Your task to perform on an android device: turn pop-ups off in chrome Image 0: 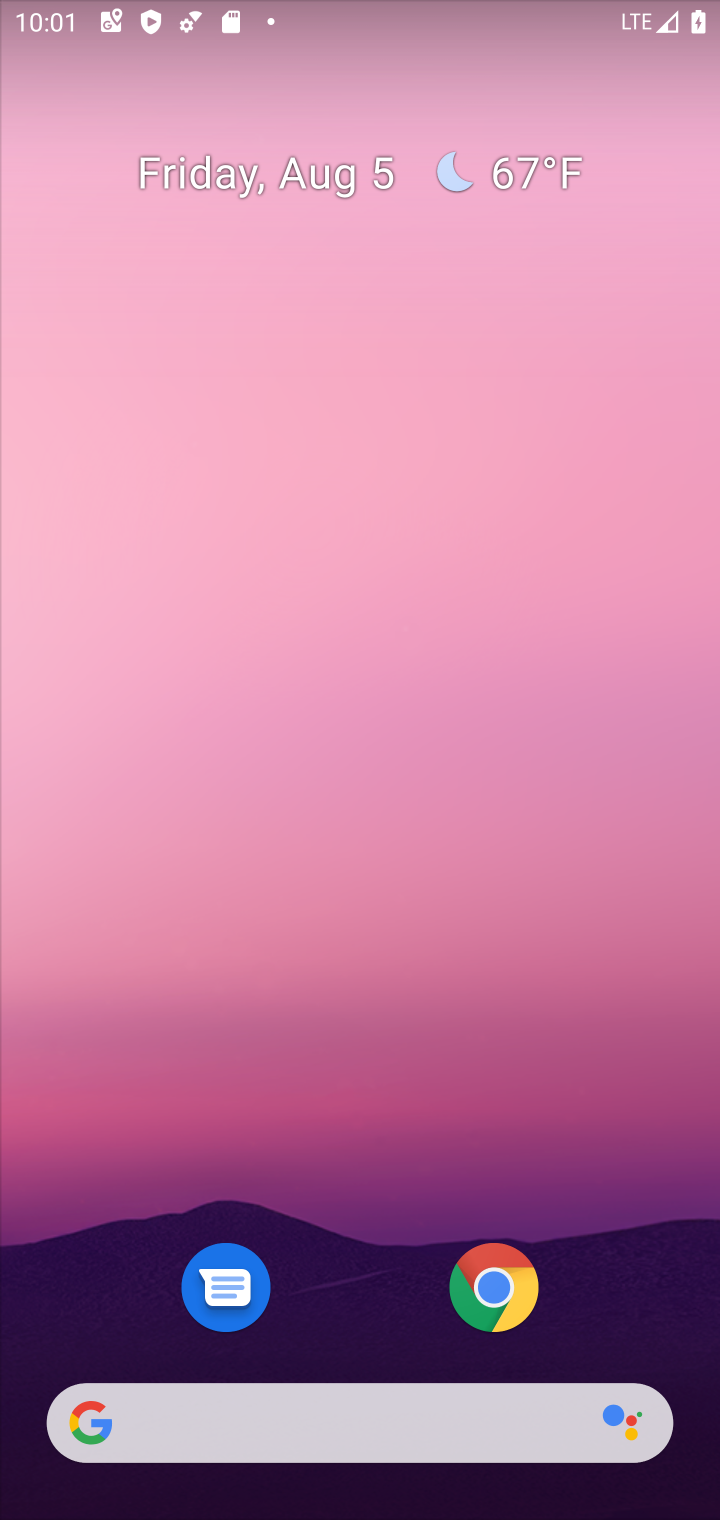
Step 0: drag from (373, 1314) to (371, 257)
Your task to perform on an android device: turn pop-ups off in chrome Image 1: 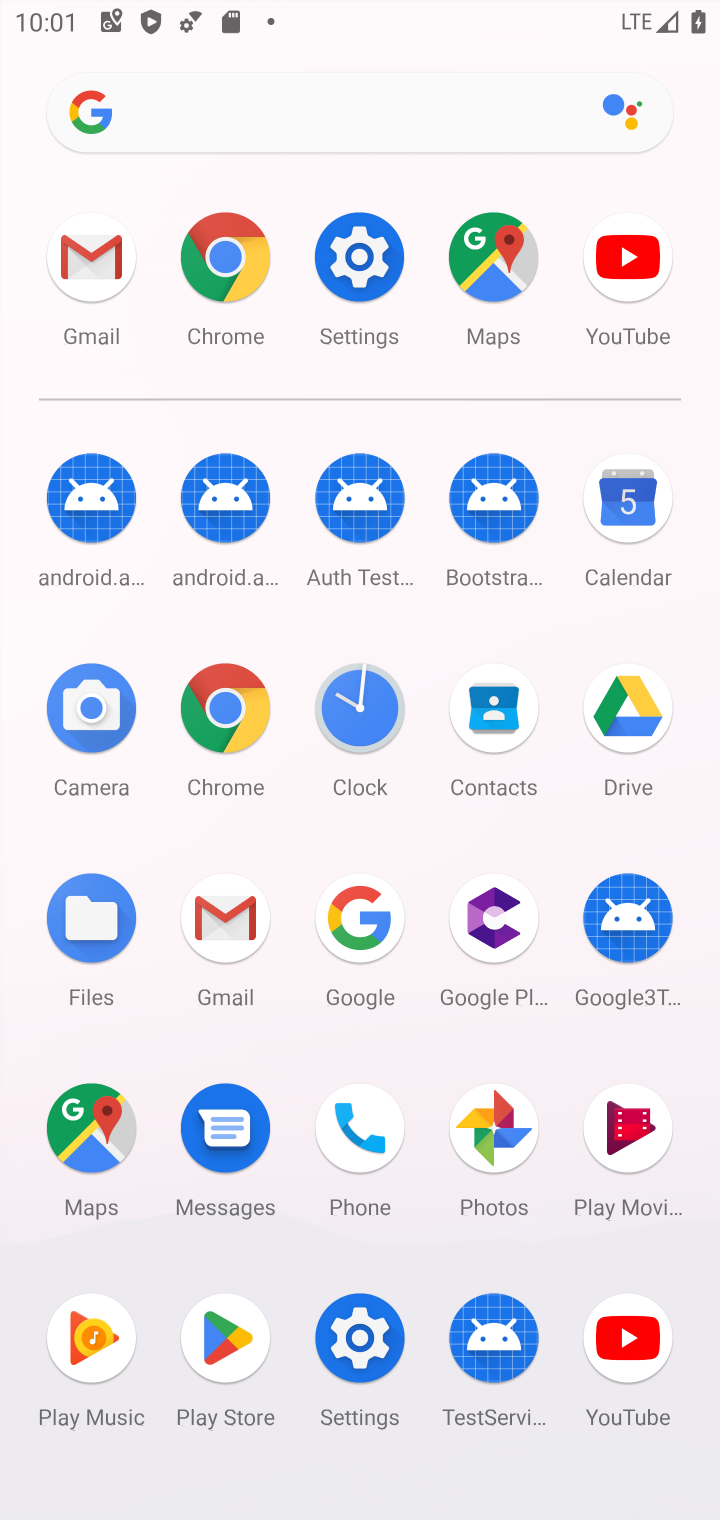
Step 1: click (619, 238)
Your task to perform on an android device: turn pop-ups off in chrome Image 2: 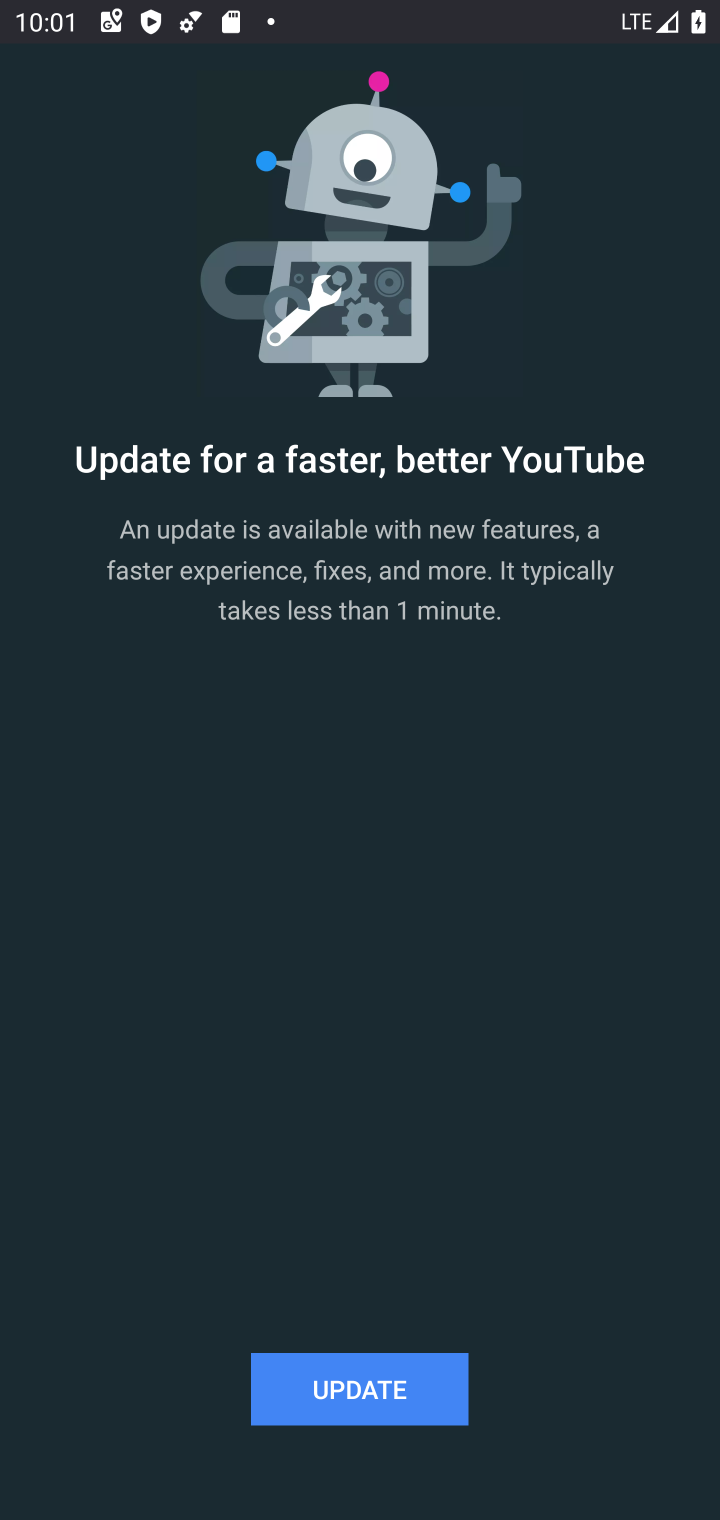
Step 2: press home button
Your task to perform on an android device: turn pop-ups off in chrome Image 3: 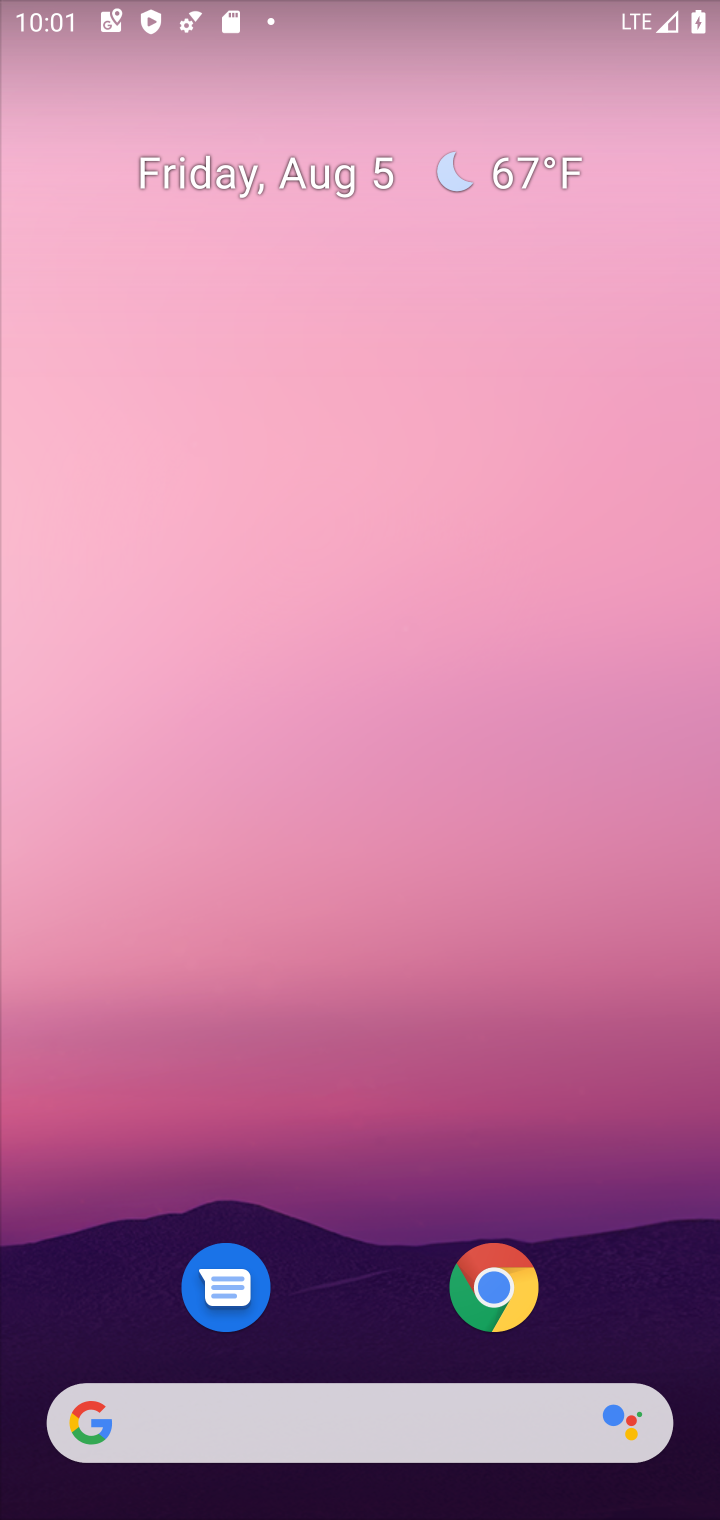
Step 3: click (497, 1278)
Your task to perform on an android device: turn pop-ups off in chrome Image 4: 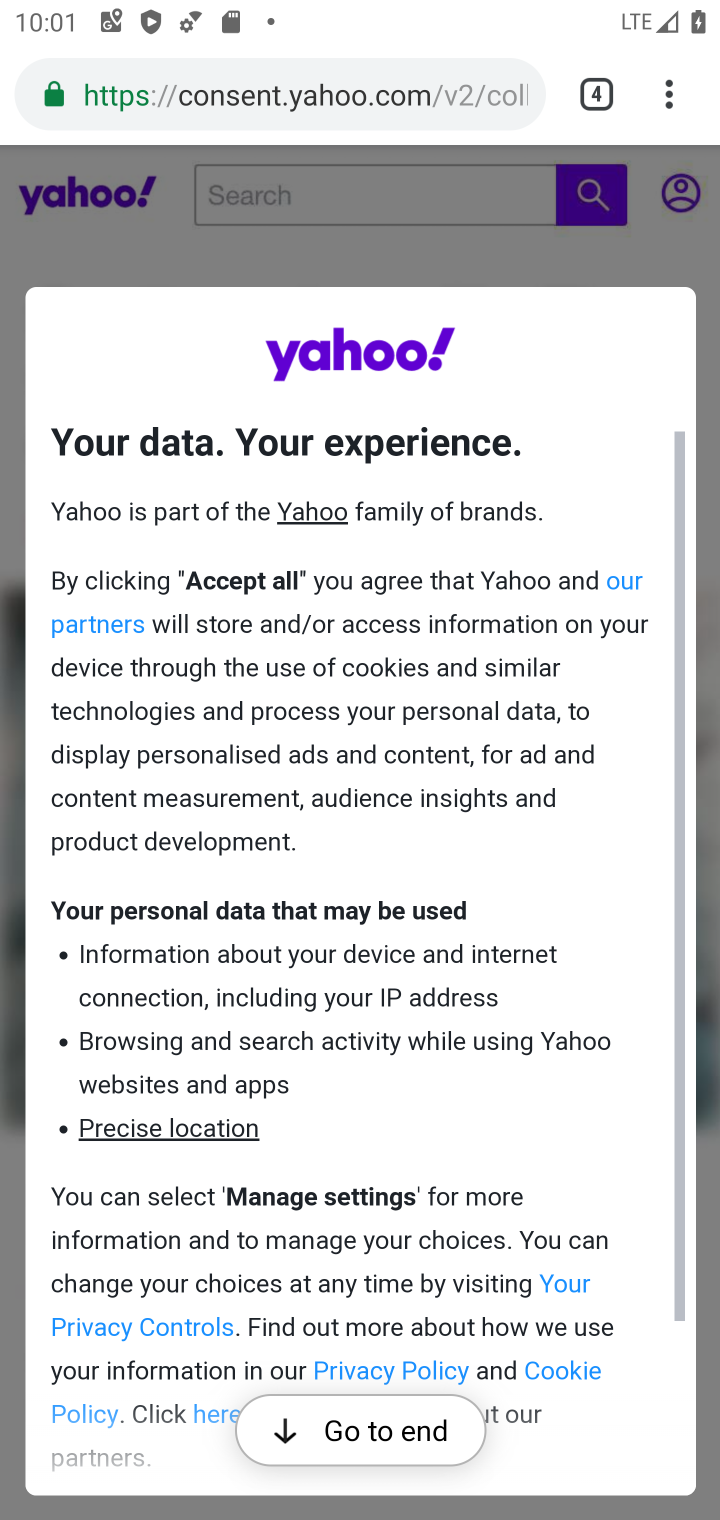
Step 4: drag from (668, 103) to (510, 1138)
Your task to perform on an android device: turn pop-ups off in chrome Image 5: 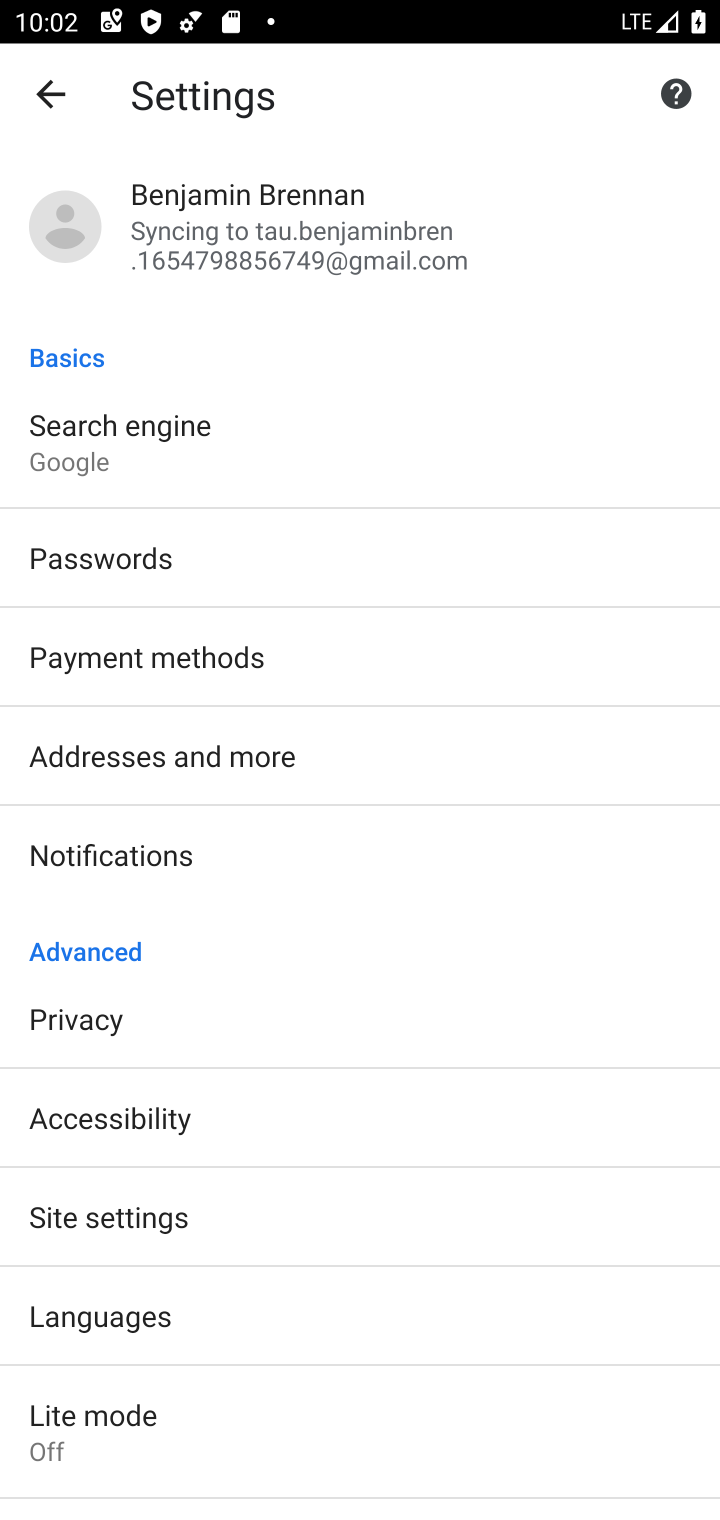
Step 5: click (164, 1216)
Your task to perform on an android device: turn pop-ups off in chrome Image 6: 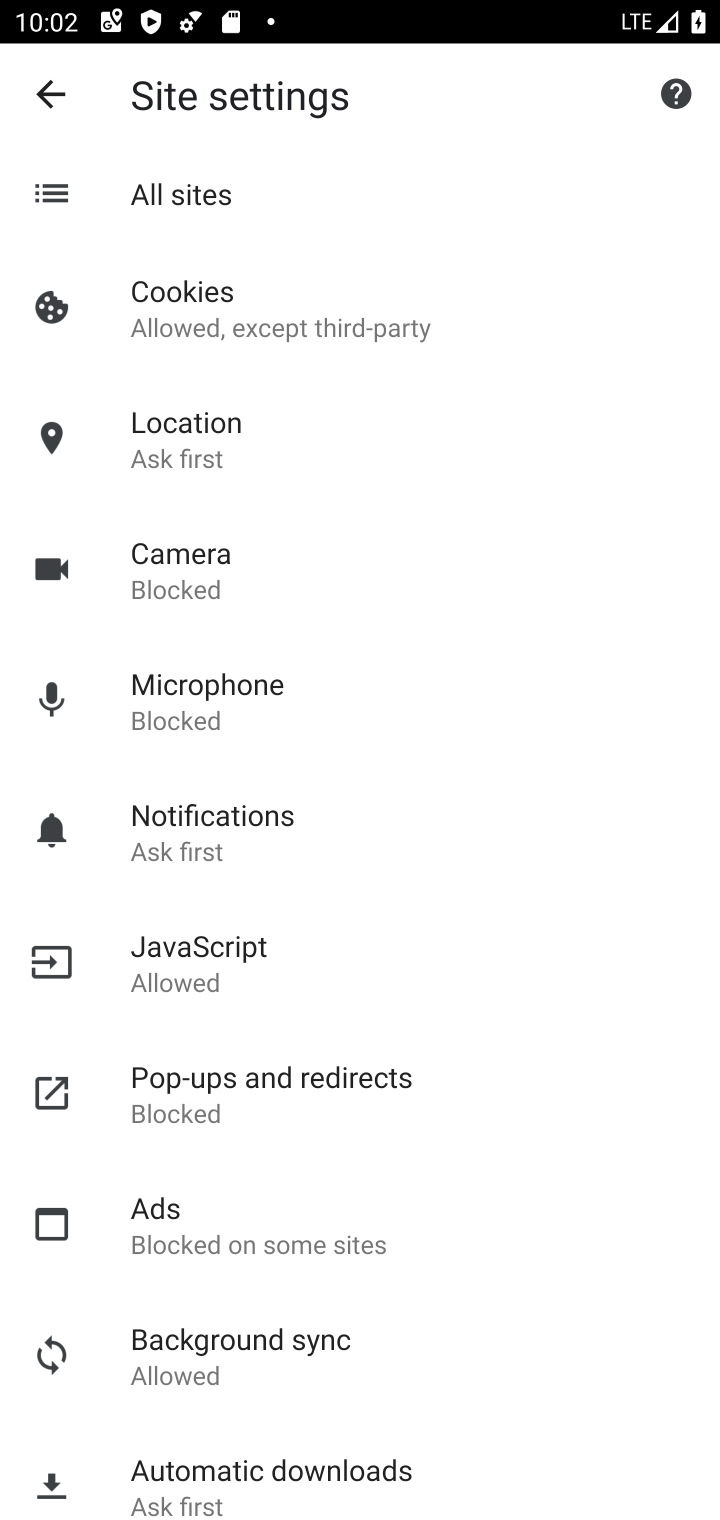
Step 6: click (185, 1087)
Your task to perform on an android device: turn pop-ups off in chrome Image 7: 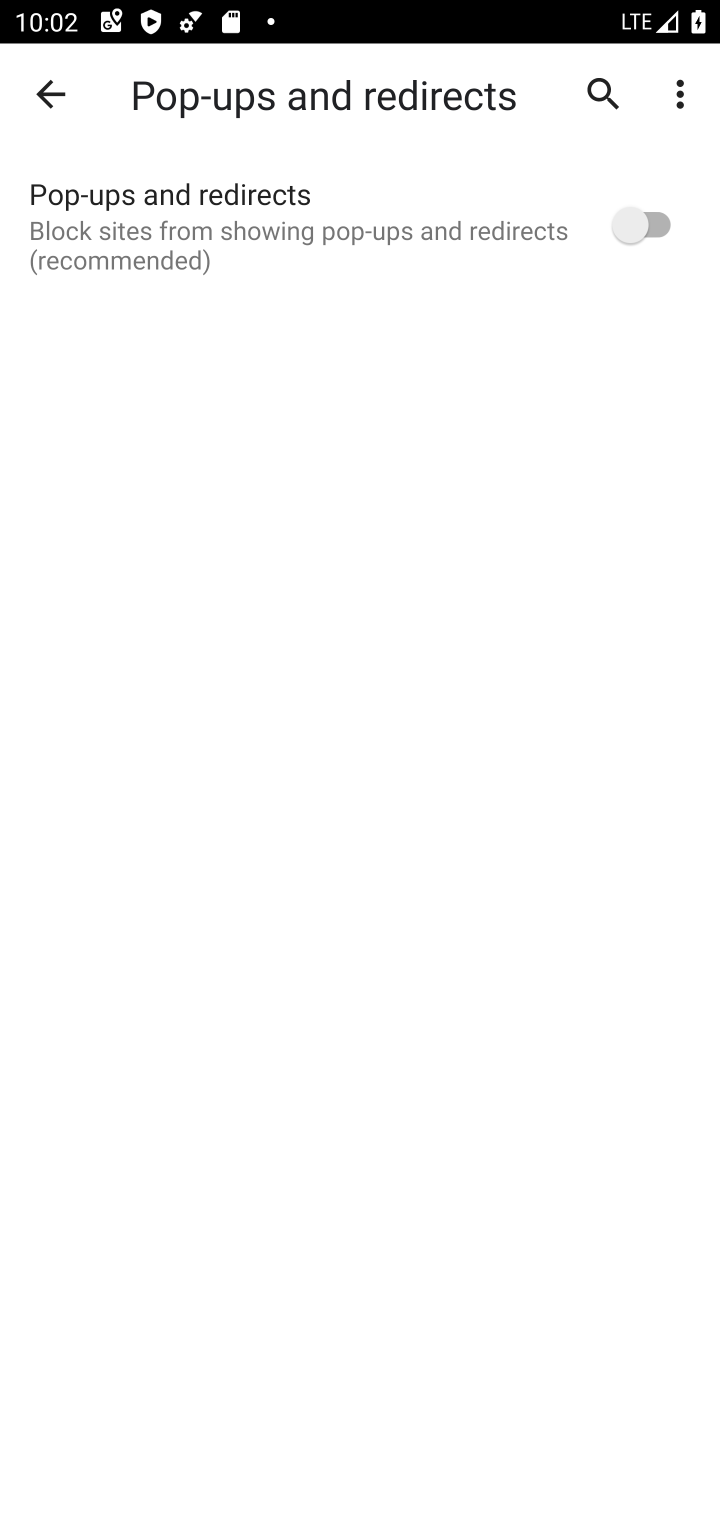
Step 7: task complete